Your task to perform on an android device: Do I have any events today? Image 0: 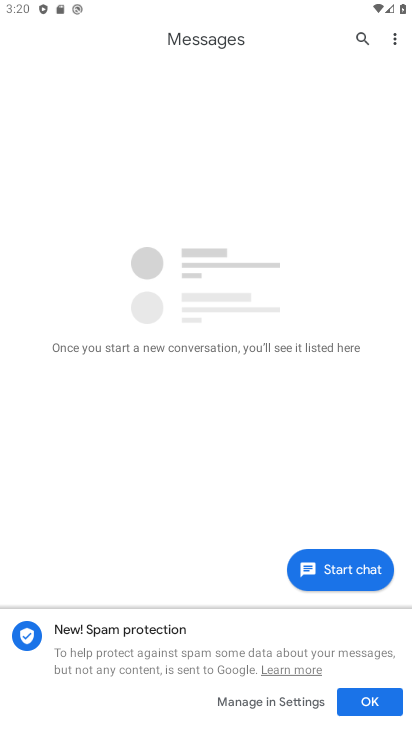
Step 0: press home button
Your task to perform on an android device: Do I have any events today? Image 1: 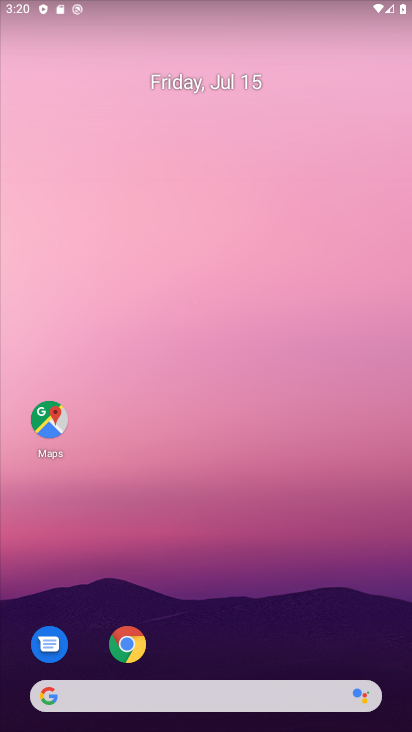
Step 1: drag from (352, 640) to (230, 83)
Your task to perform on an android device: Do I have any events today? Image 2: 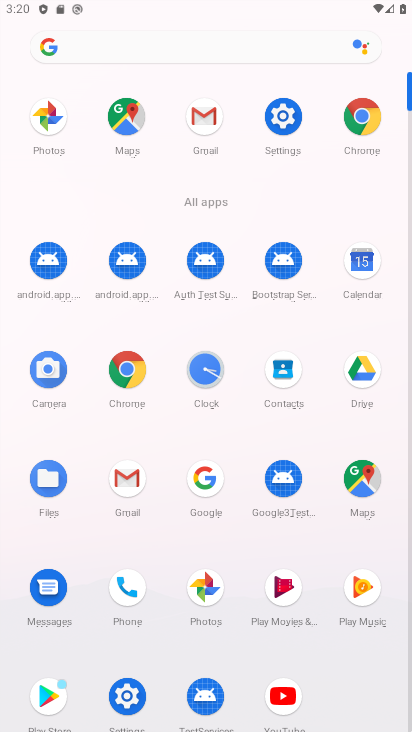
Step 2: click (358, 257)
Your task to perform on an android device: Do I have any events today? Image 3: 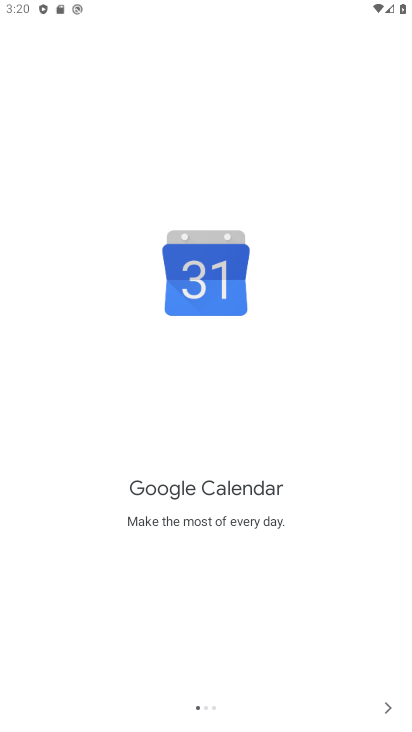
Step 3: click (388, 713)
Your task to perform on an android device: Do I have any events today? Image 4: 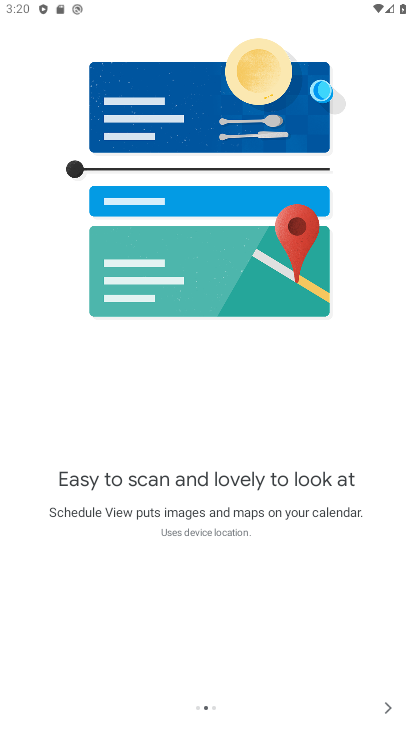
Step 4: click (388, 713)
Your task to perform on an android device: Do I have any events today? Image 5: 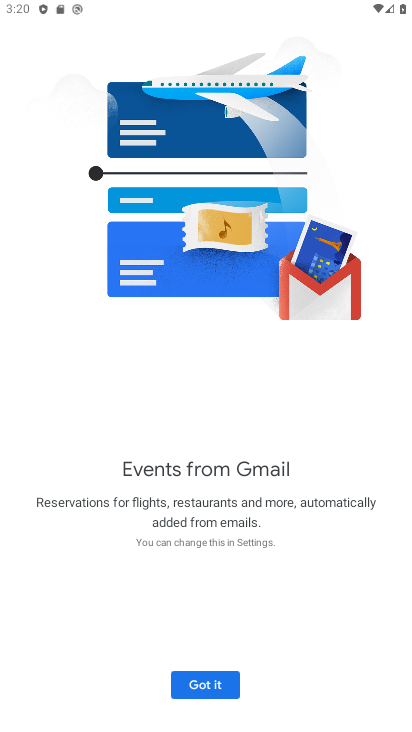
Step 5: click (198, 677)
Your task to perform on an android device: Do I have any events today? Image 6: 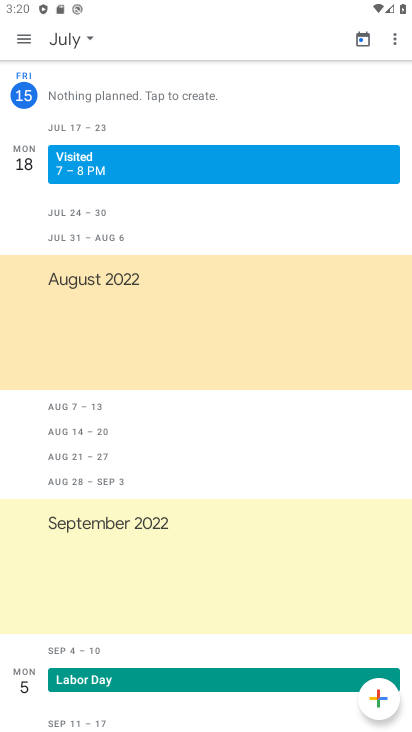
Step 6: click (24, 37)
Your task to perform on an android device: Do I have any events today? Image 7: 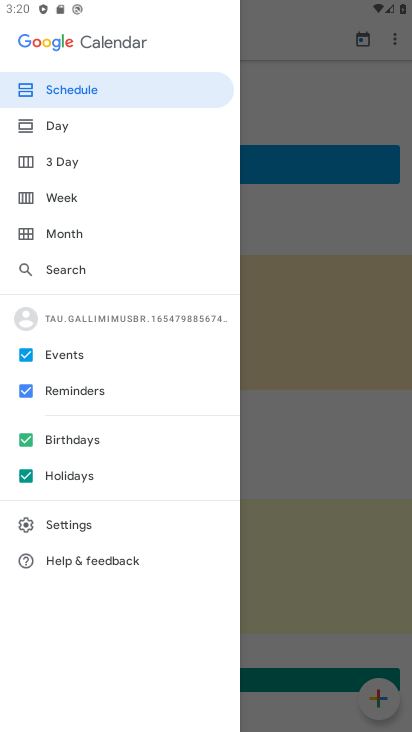
Step 7: click (27, 477)
Your task to perform on an android device: Do I have any events today? Image 8: 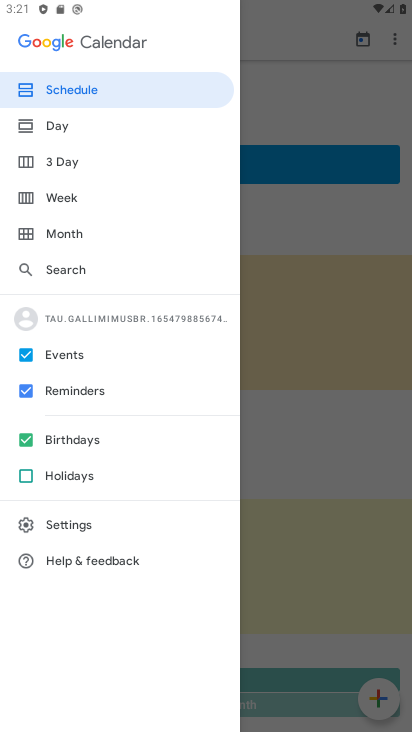
Step 8: click (26, 442)
Your task to perform on an android device: Do I have any events today? Image 9: 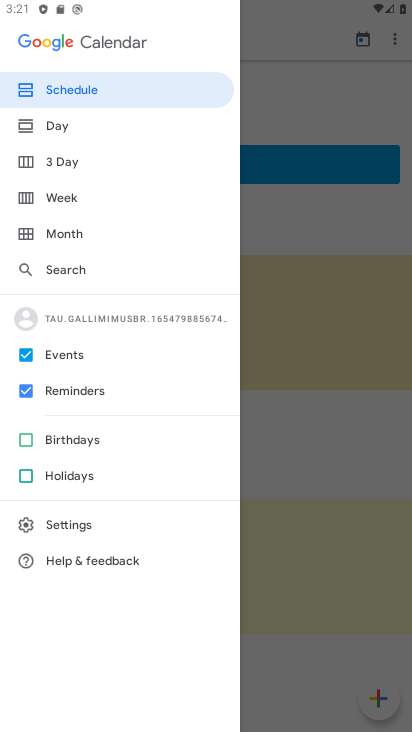
Step 9: click (23, 387)
Your task to perform on an android device: Do I have any events today? Image 10: 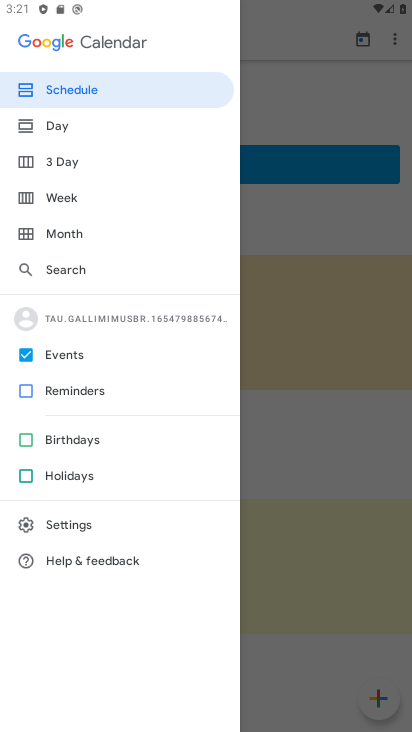
Step 10: click (62, 129)
Your task to perform on an android device: Do I have any events today? Image 11: 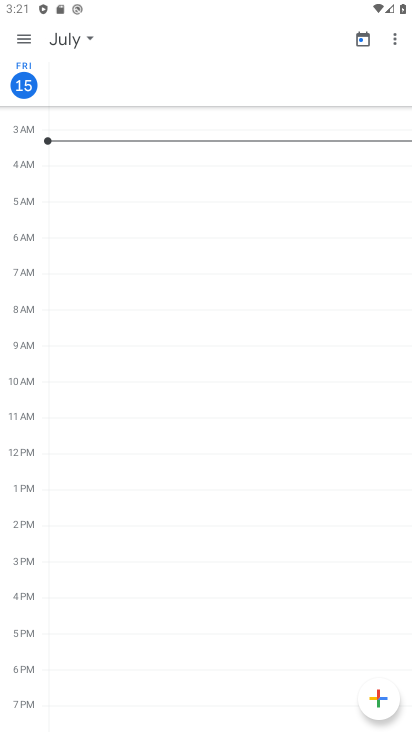
Step 11: task complete